Your task to perform on an android device: uninstall "Facebook" Image 0: 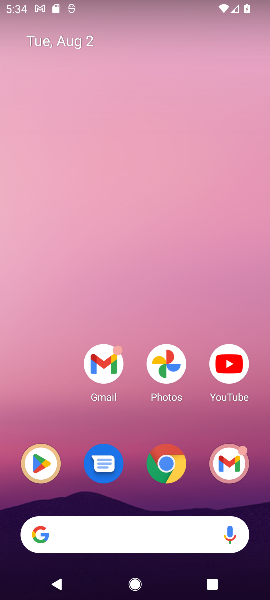
Step 0: press home button
Your task to perform on an android device: uninstall "Facebook" Image 1: 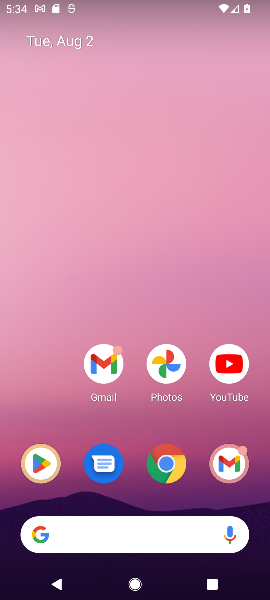
Step 1: click (41, 460)
Your task to perform on an android device: uninstall "Facebook" Image 2: 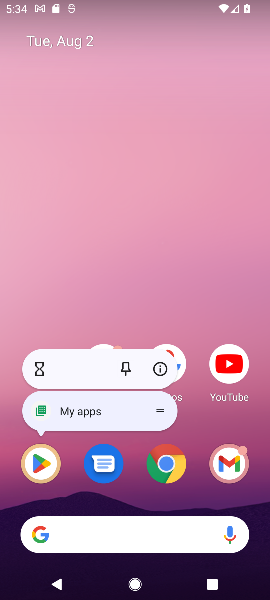
Step 2: click (41, 460)
Your task to perform on an android device: uninstall "Facebook" Image 3: 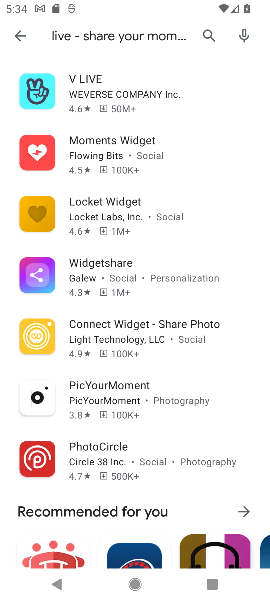
Step 3: click (208, 30)
Your task to perform on an android device: uninstall "Facebook" Image 4: 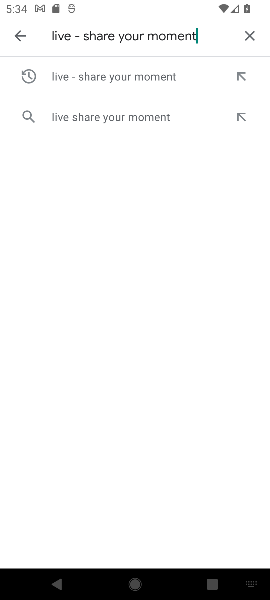
Step 4: click (249, 35)
Your task to perform on an android device: uninstall "Facebook" Image 5: 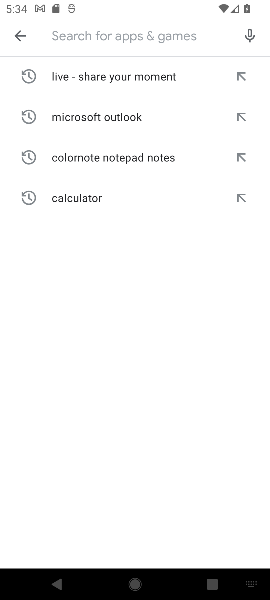
Step 5: type "Facebook"
Your task to perform on an android device: uninstall "Facebook" Image 6: 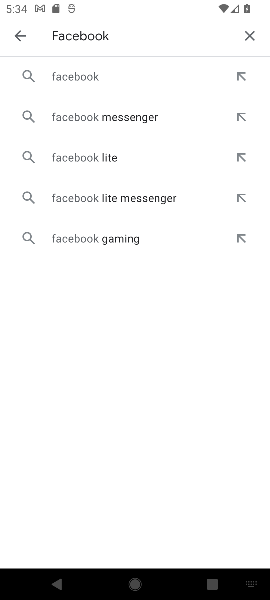
Step 6: click (81, 77)
Your task to perform on an android device: uninstall "Facebook" Image 7: 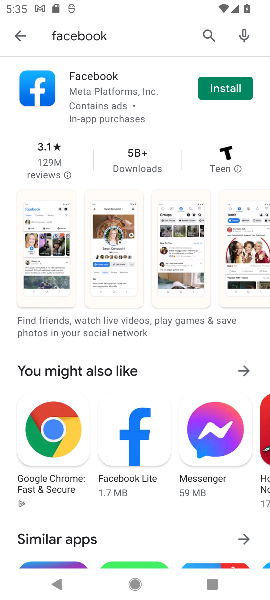
Step 7: task complete